Your task to perform on an android device: open chrome and create a bookmark for the current page Image 0: 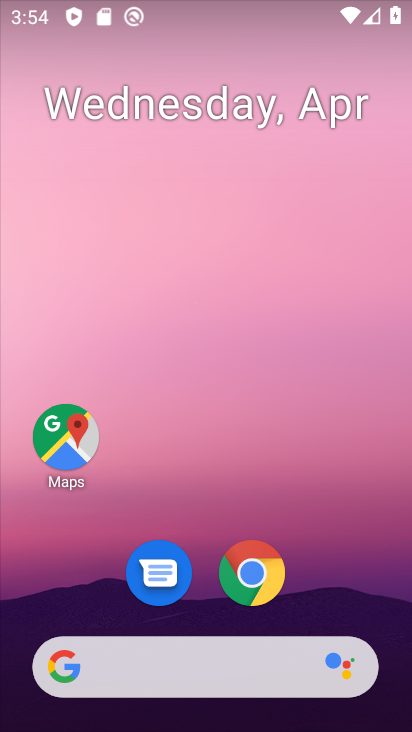
Step 0: click (261, 576)
Your task to perform on an android device: open chrome and create a bookmark for the current page Image 1: 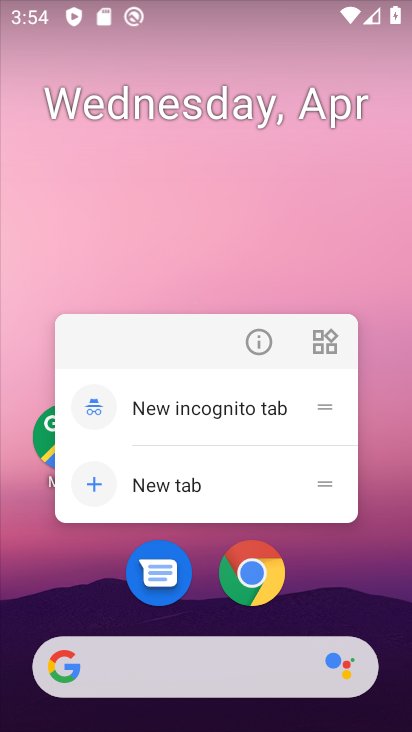
Step 1: click (258, 572)
Your task to perform on an android device: open chrome and create a bookmark for the current page Image 2: 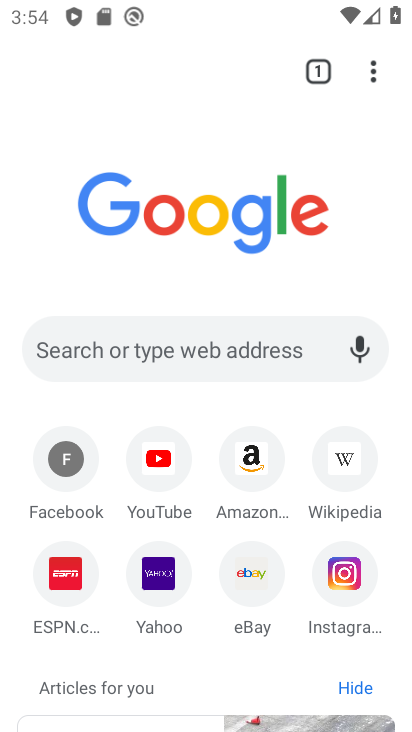
Step 2: click (225, 371)
Your task to perform on an android device: open chrome and create a bookmark for the current page Image 3: 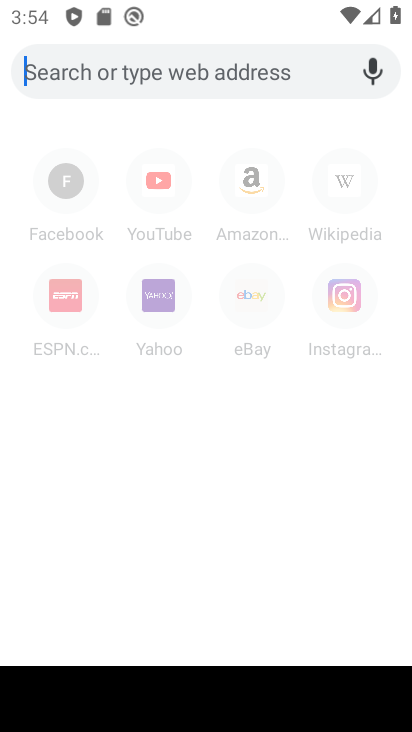
Step 3: type "www.global.com"
Your task to perform on an android device: open chrome and create a bookmark for the current page Image 4: 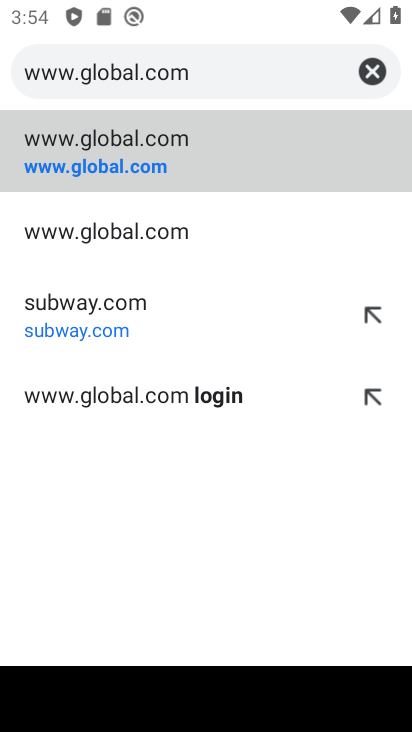
Step 4: click (101, 166)
Your task to perform on an android device: open chrome and create a bookmark for the current page Image 5: 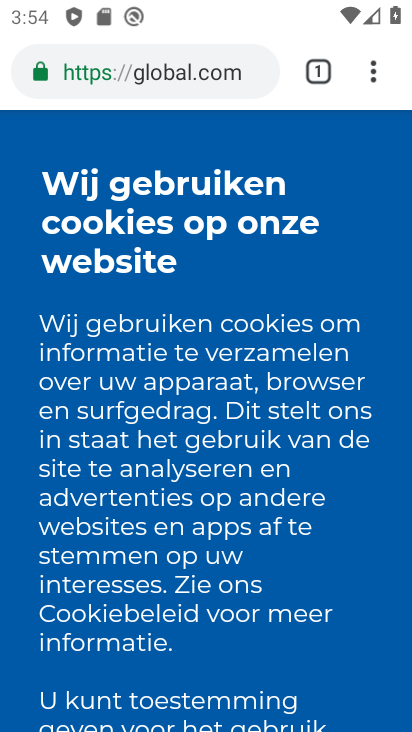
Step 5: click (371, 66)
Your task to perform on an android device: open chrome and create a bookmark for the current page Image 6: 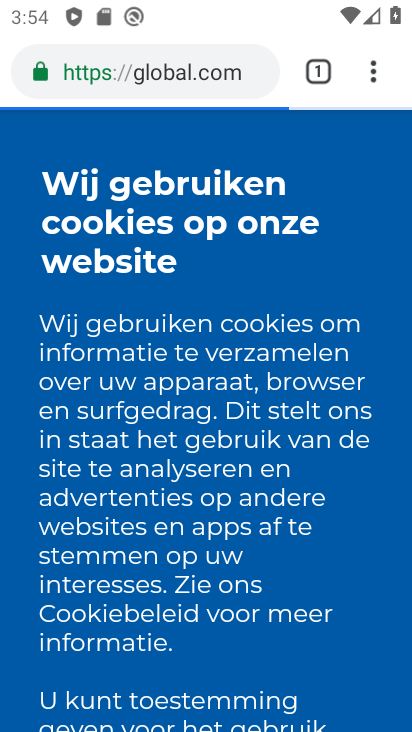
Step 6: click (371, 66)
Your task to perform on an android device: open chrome and create a bookmark for the current page Image 7: 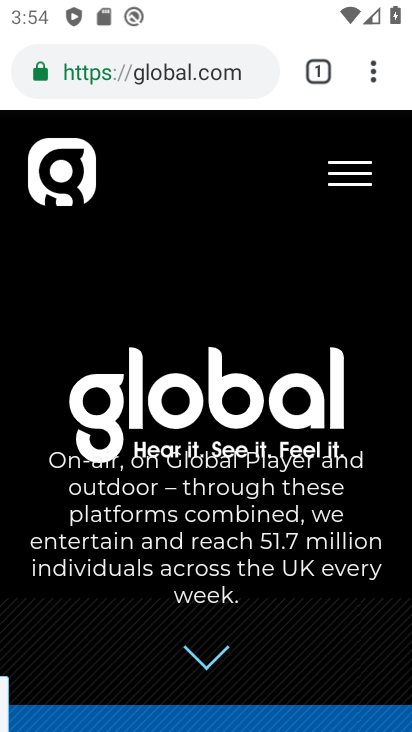
Step 7: click (371, 66)
Your task to perform on an android device: open chrome and create a bookmark for the current page Image 8: 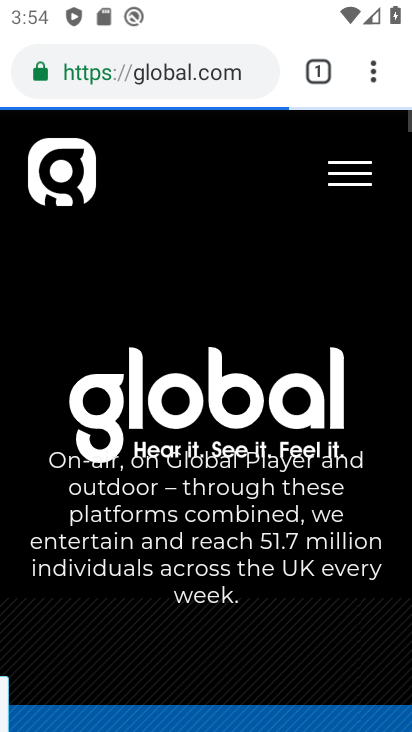
Step 8: click (371, 66)
Your task to perform on an android device: open chrome and create a bookmark for the current page Image 9: 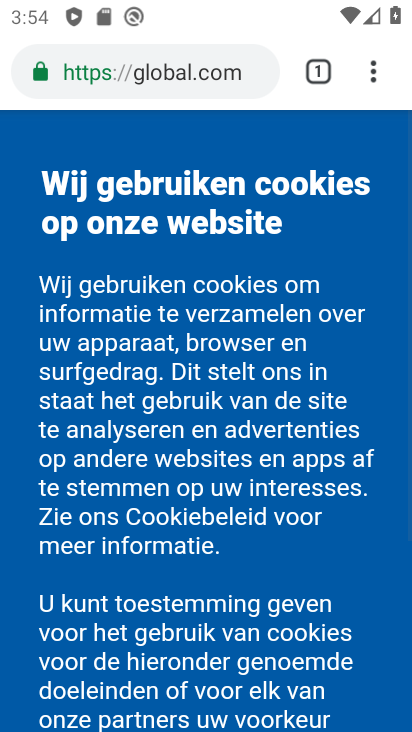
Step 9: click (371, 66)
Your task to perform on an android device: open chrome and create a bookmark for the current page Image 10: 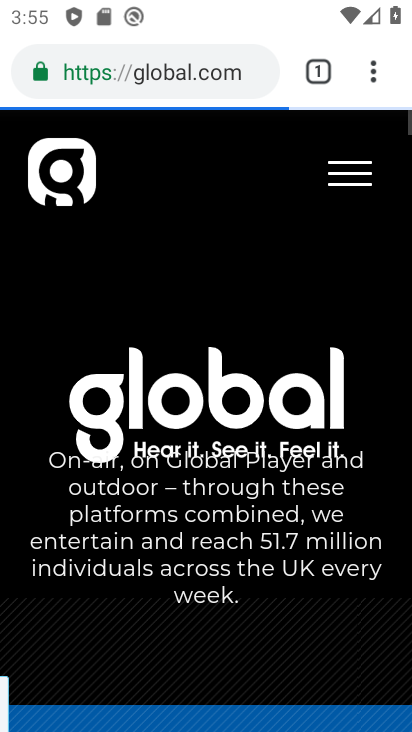
Step 10: click (371, 66)
Your task to perform on an android device: open chrome and create a bookmark for the current page Image 11: 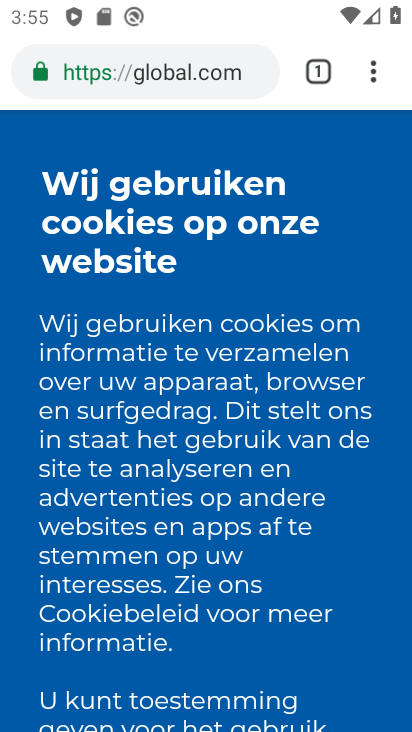
Step 11: click (371, 66)
Your task to perform on an android device: open chrome and create a bookmark for the current page Image 12: 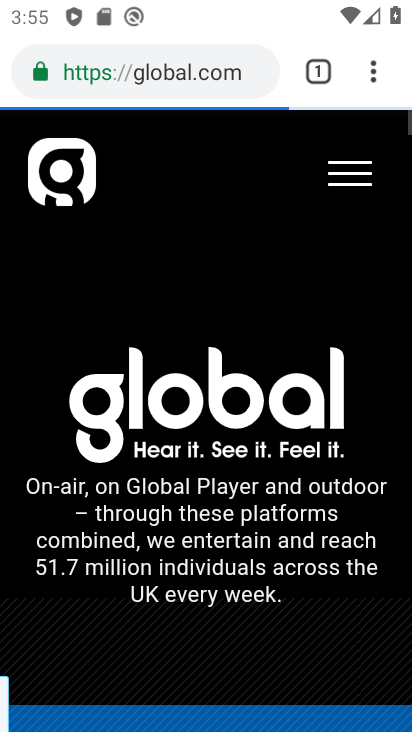
Step 12: click (371, 66)
Your task to perform on an android device: open chrome and create a bookmark for the current page Image 13: 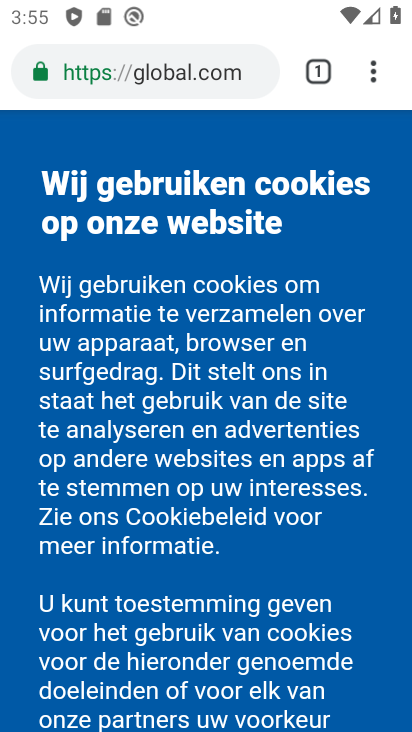
Step 13: click (371, 66)
Your task to perform on an android device: open chrome and create a bookmark for the current page Image 14: 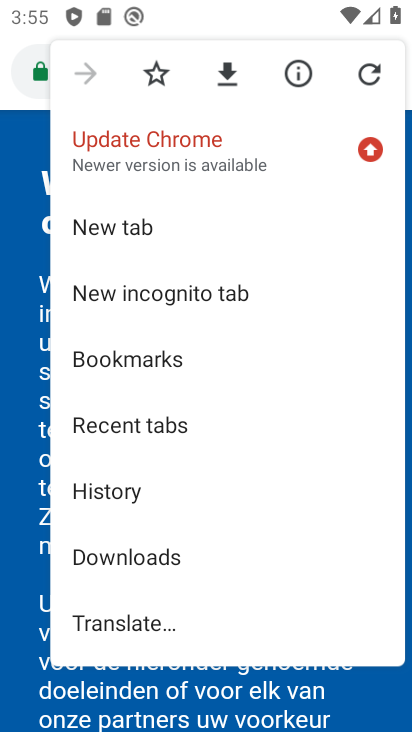
Step 14: click (160, 71)
Your task to perform on an android device: open chrome and create a bookmark for the current page Image 15: 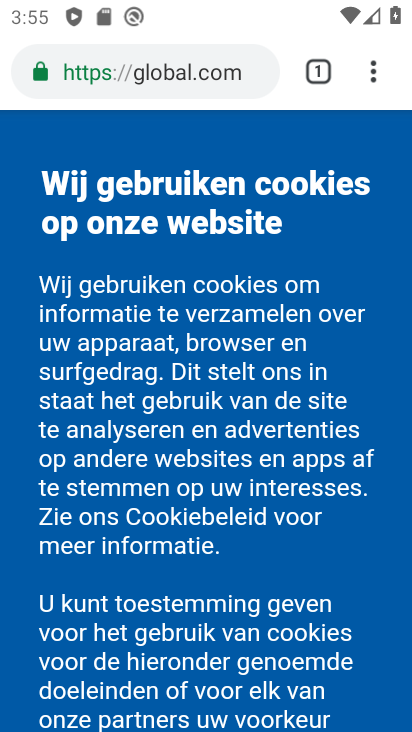
Step 15: task complete